Your task to perform on an android device: toggle airplane mode Image 0: 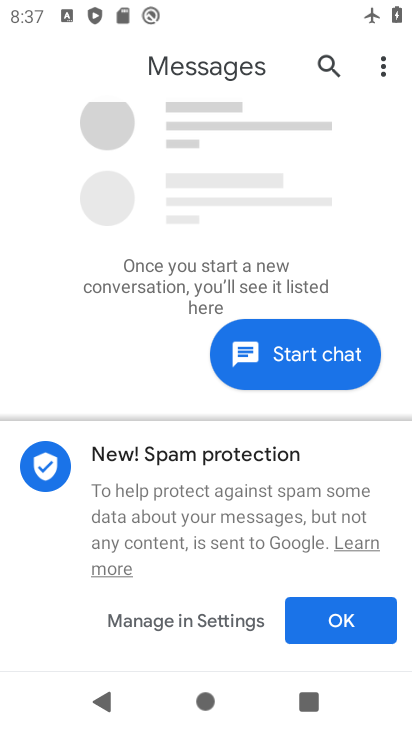
Step 0: press home button
Your task to perform on an android device: toggle airplane mode Image 1: 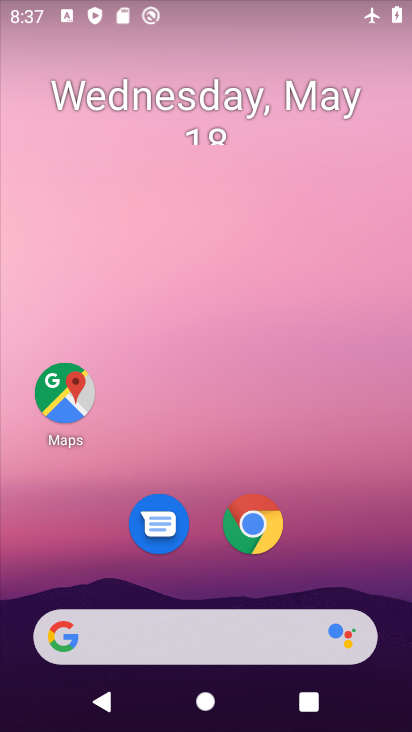
Step 1: drag from (319, 470) to (323, 0)
Your task to perform on an android device: toggle airplane mode Image 2: 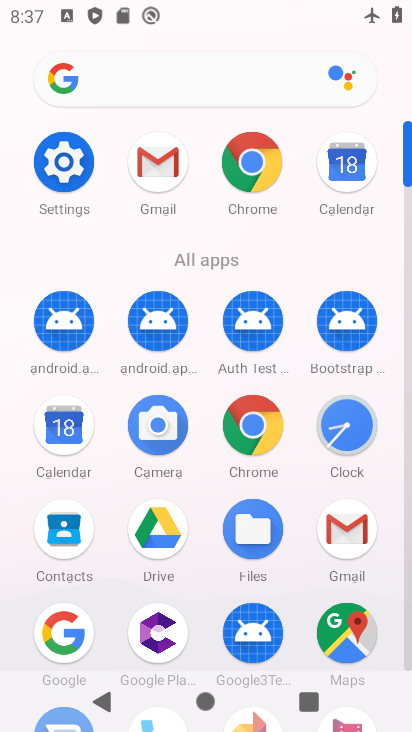
Step 2: click (61, 160)
Your task to perform on an android device: toggle airplane mode Image 3: 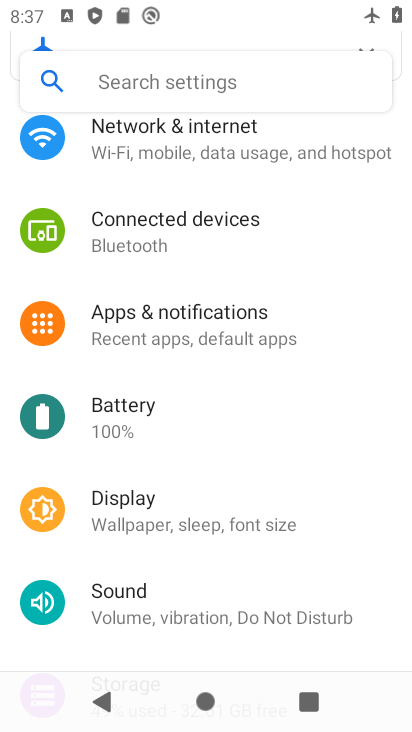
Step 3: click (197, 145)
Your task to perform on an android device: toggle airplane mode Image 4: 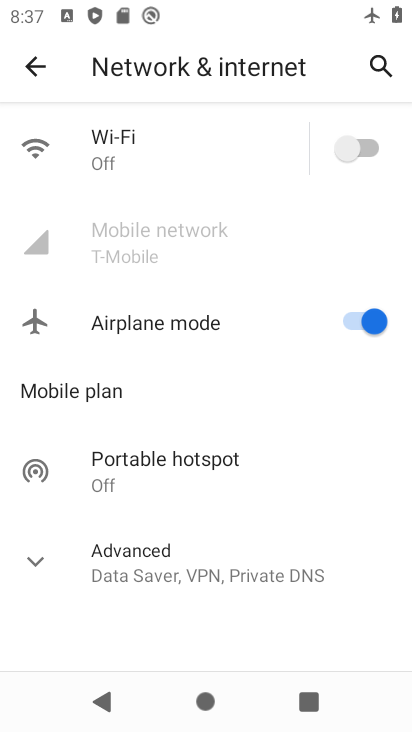
Step 4: click (344, 313)
Your task to perform on an android device: toggle airplane mode Image 5: 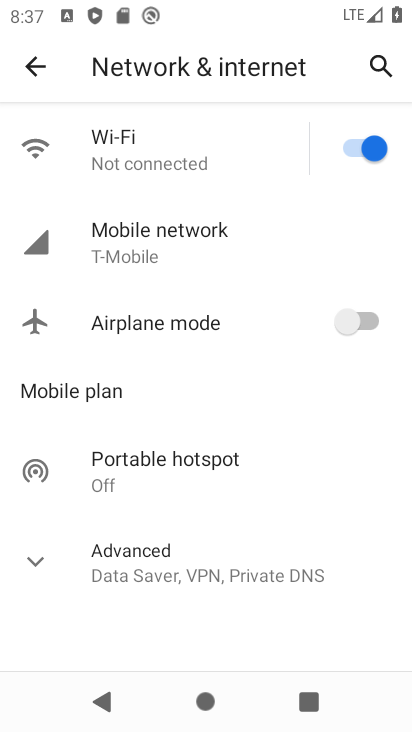
Step 5: task complete